Your task to perform on an android device: change the clock style Image 0: 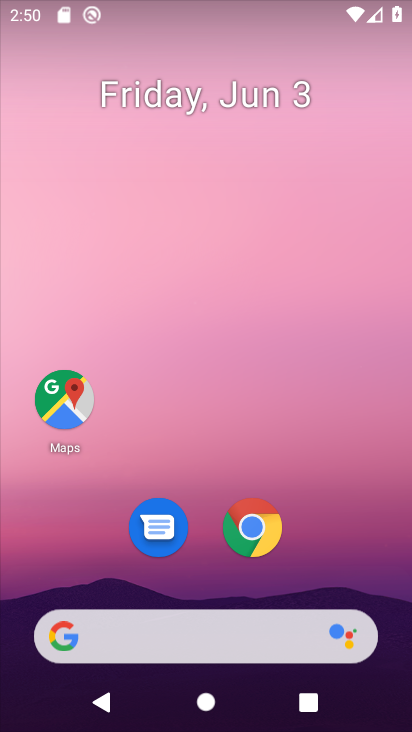
Step 0: drag from (205, 569) to (267, 4)
Your task to perform on an android device: change the clock style Image 1: 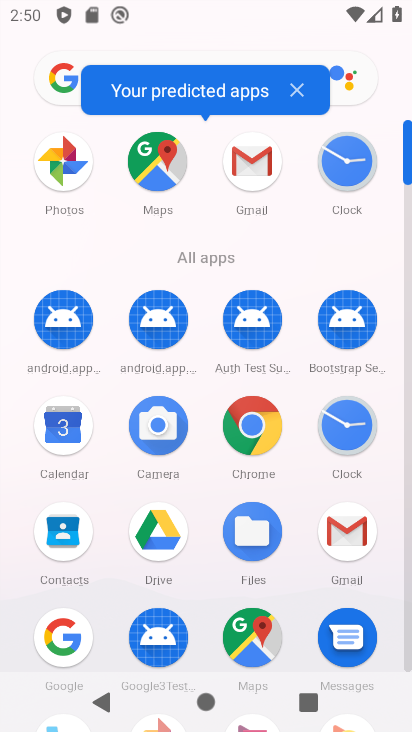
Step 1: click (360, 420)
Your task to perform on an android device: change the clock style Image 2: 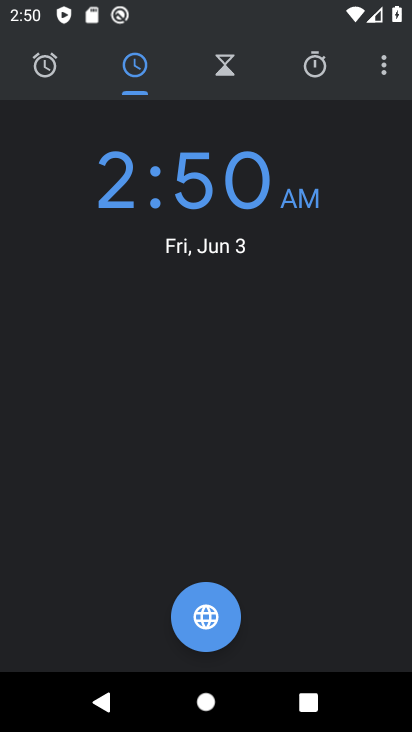
Step 2: click (381, 63)
Your task to perform on an android device: change the clock style Image 3: 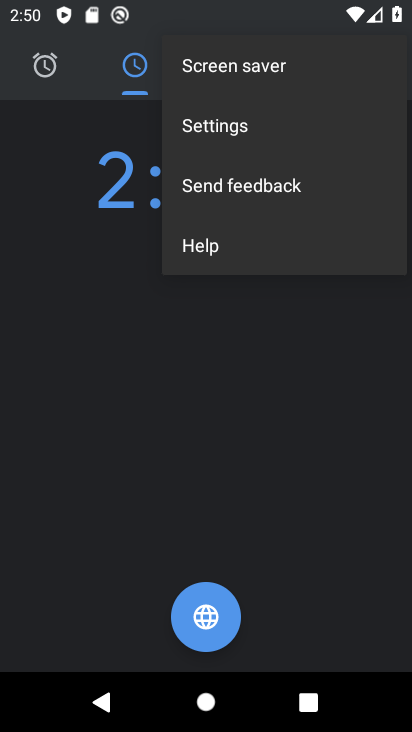
Step 3: click (317, 130)
Your task to perform on an android device: change the clock style Image 4: 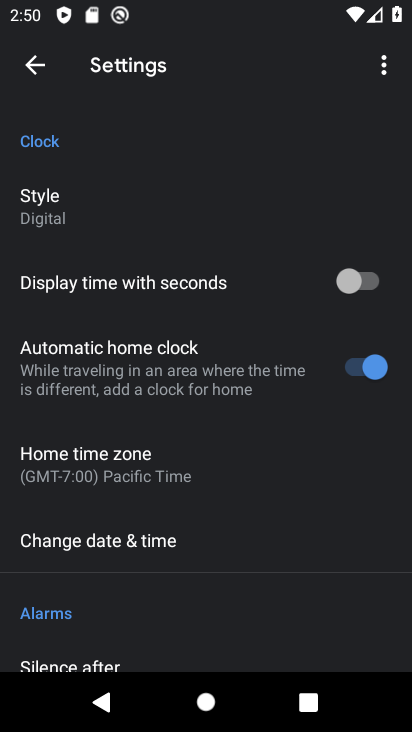
Step 4: click (101, 216)
Your task to perform on an android device: change the clock style Image 5: 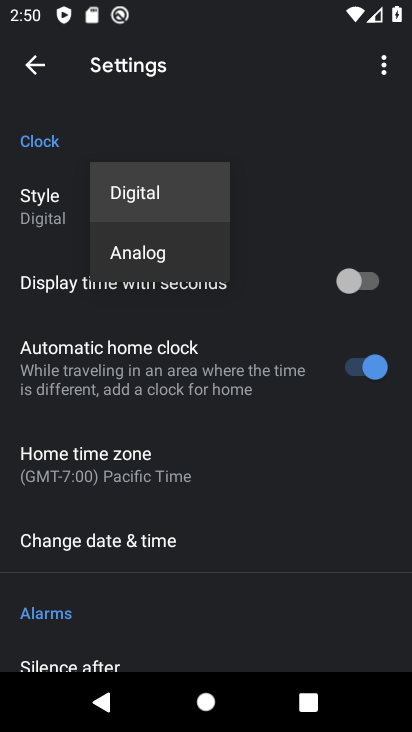
Step 5: click (157, 245)
Your task to perform on an android device: change the clock style Image 6: 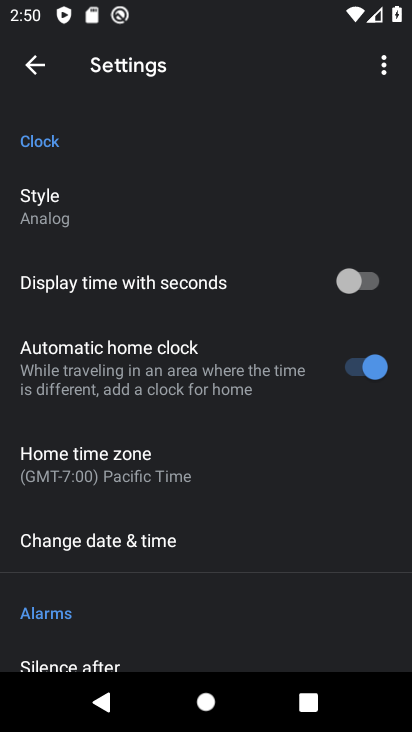
Step 6: task complete